Your task to perform on an android device: What's the news in China? Image 0: 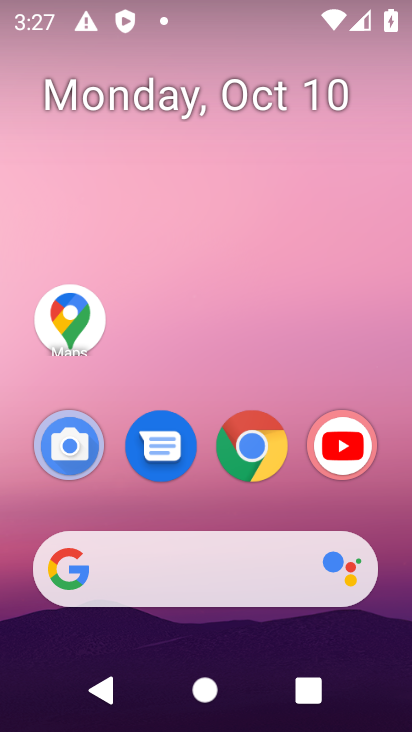
Step 0: click (186, 556)
Your task to perform on an android device: What's the news in China? Image 1: 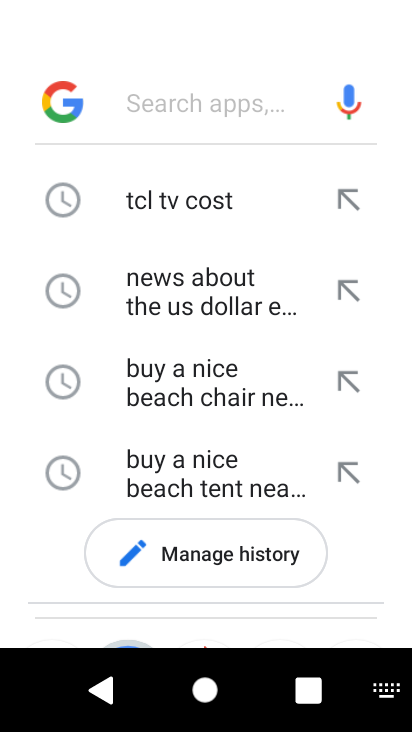
Step 1: type "news in China"
Your task to perform on an android device: What's the news in China? Image 2: 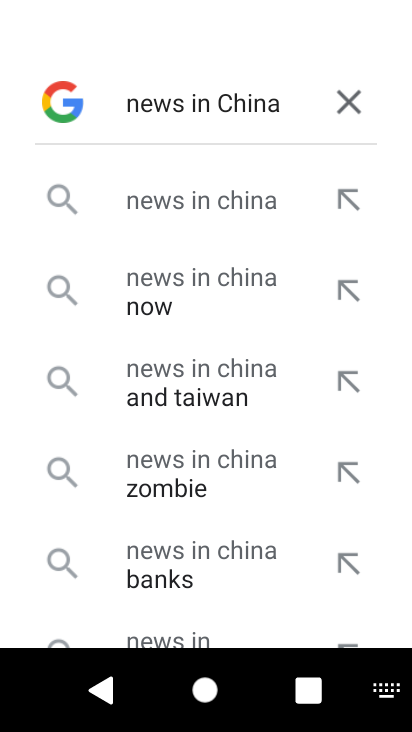
Step 2: click (244, 202)
Your task to perform on an android device: What's the news in China? Image 3: 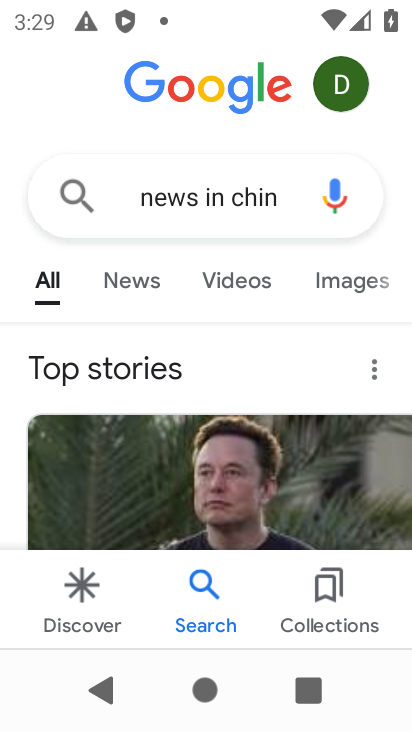
Step 3: drag from (234, 495) to (251, 312)
Your task to perform on an android device: What's the news in China? Image 4: 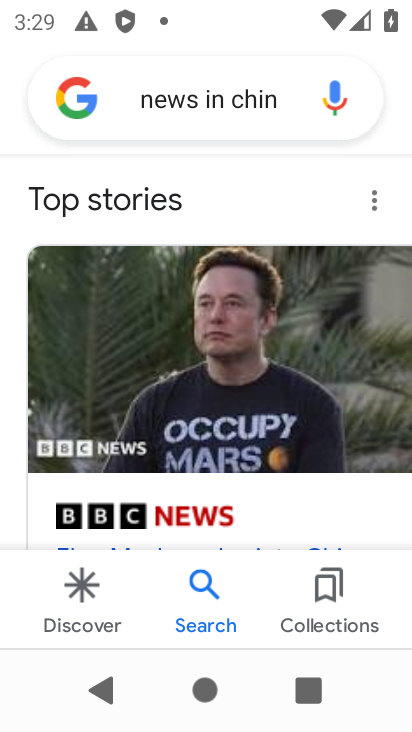
Step 4: drag from (214, 483) to (258, 305)
Your task to perform on an android device: What's the news in China? Image 5: 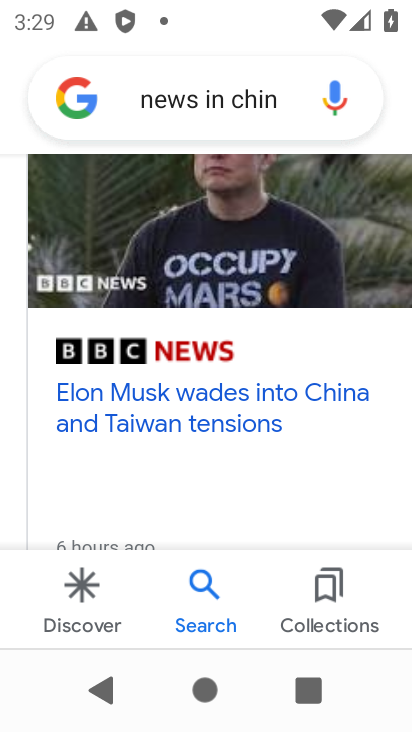
Step 5: drag from (230, 493) to (307, 280)
Your task to perform on an android device: What's the news in China? Image 6: 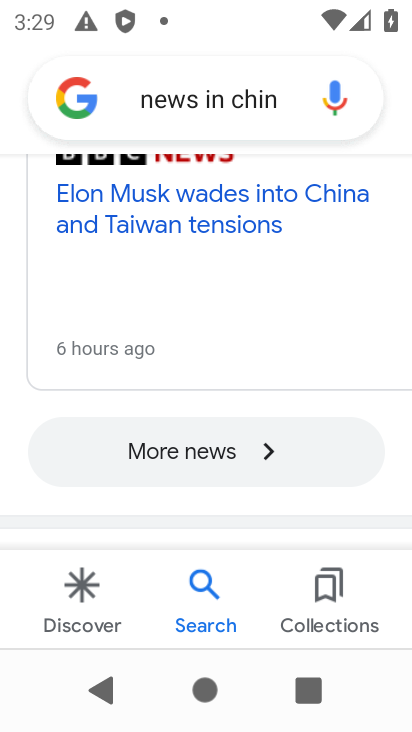
Step 6: drag from (264, 494) to (304, 280)
Your task to perform on an android device: What's the news in China? Image 7: 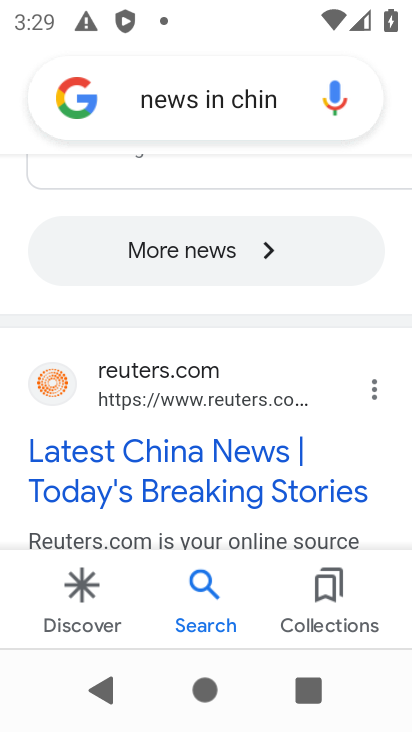
Step 7: drag from (291, 286) to (291, 476)
Your task to perform on an android device: What's the news in China? Image 8: 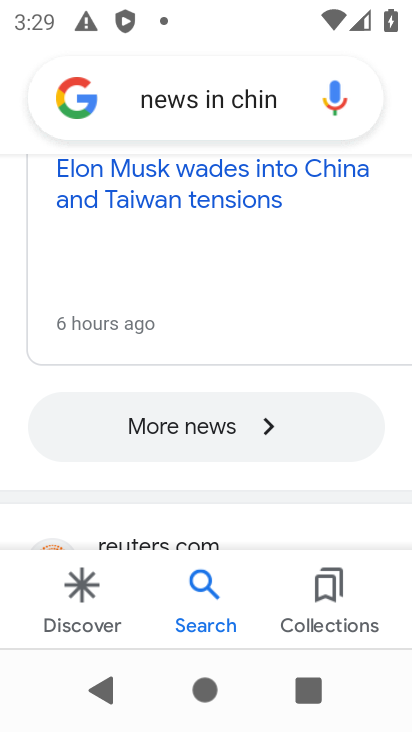
Step 8: drag from (285, 318) to (268, 546)
Your task to perform on an android device: What's the news in China? Image 9: 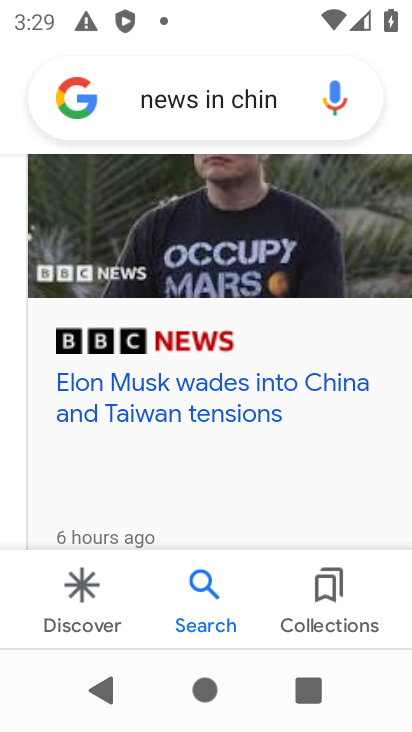
Step 9: drag from (239, 377) to (244, 485)
Your task to perform on an android device: What's the news in China? Image 10: 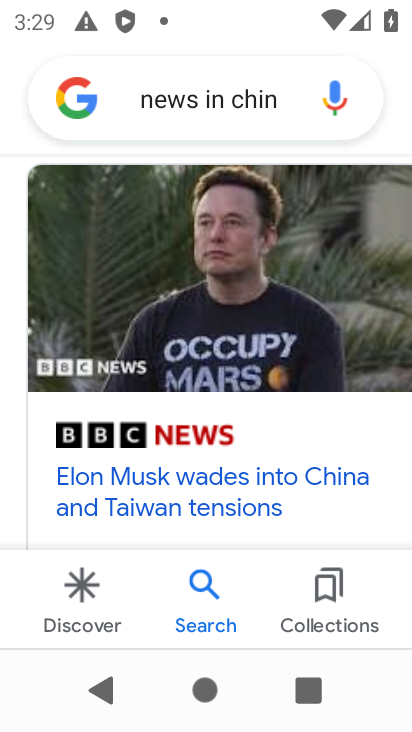
Step 10: drag from (257, 209) to (302, 457)
Your task to perform on an android device: What's the news in China? Image 11: 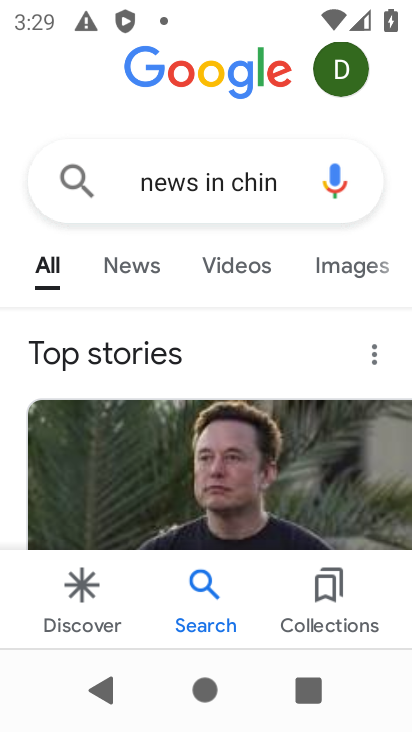
Step 11: click (135, 260)
Your task to perform on an android device: What's the news in China? Image 12: 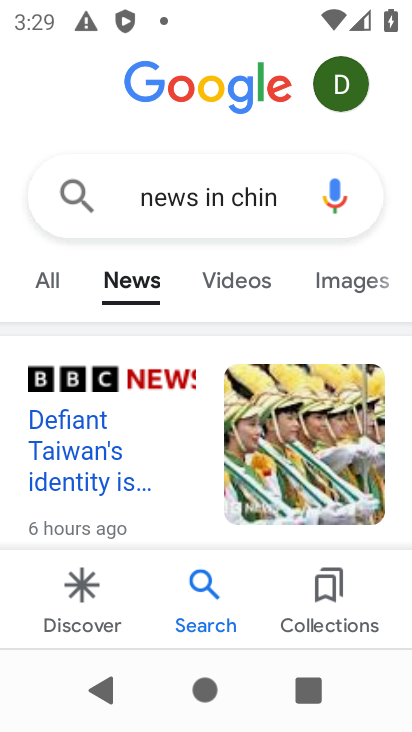
Step 12: task complete